Your task to perform on an android device: Go to CNN.com Image 0: 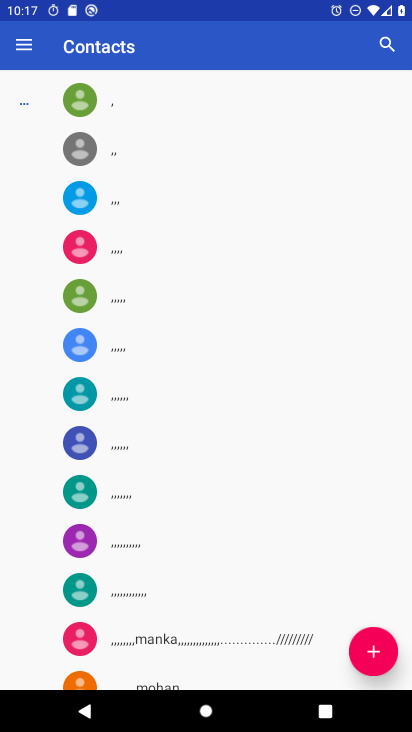
Step 0: press home button
Your task to perform on an android device: Go to CNN.com Image 1: 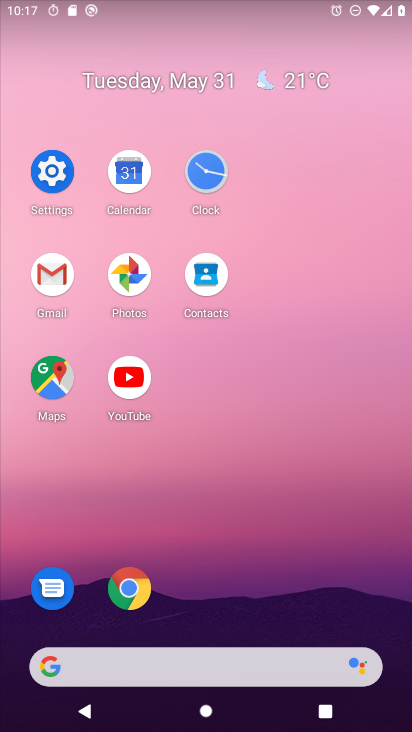
Step 1: click (133, 592)
Your task to perform on an android device: Go to CNN.com Image 2: 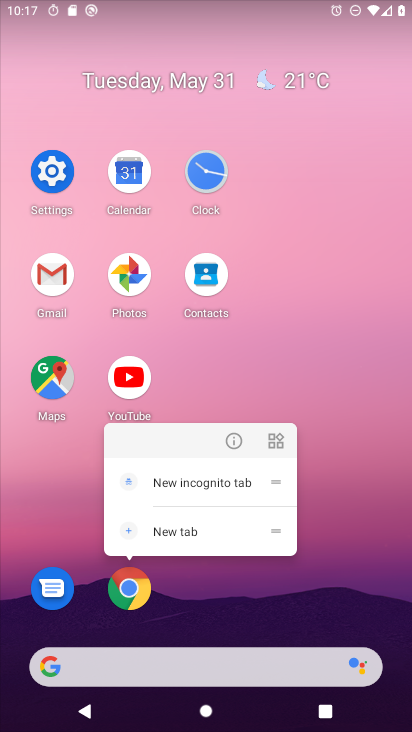
Step 2: click (118, 595)
Your task to perform on an android device: Go to CNN.com Image 3: 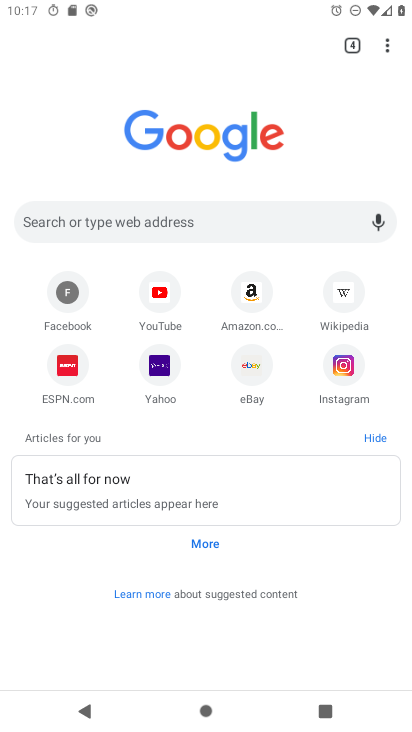
Step 3: click (194, 212)
Your task to perform on an android device: Go to CNN.com Image 4: 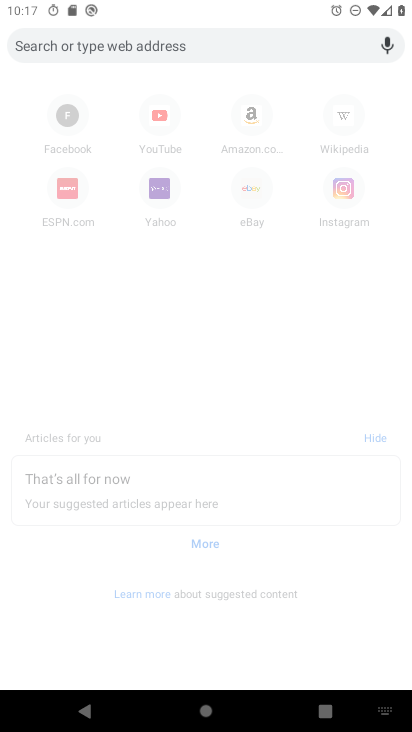
Step 4: type "cnn"
Your task to perform on an android device: Go to CNN.com Image 5: 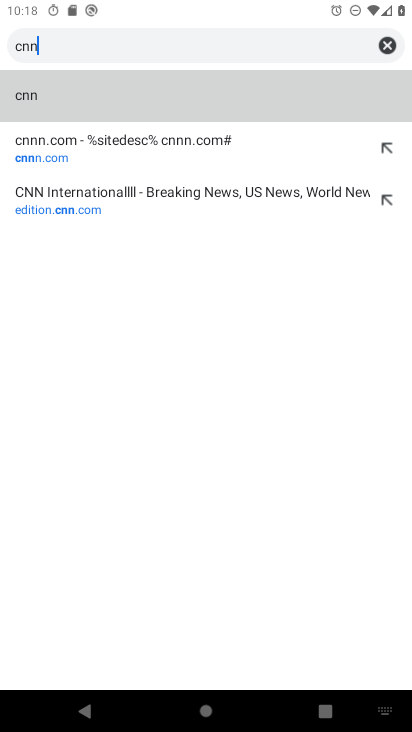
Step 5: click (89, 213)
Your task to perform on an android device: Go to CNN.com Image 6: 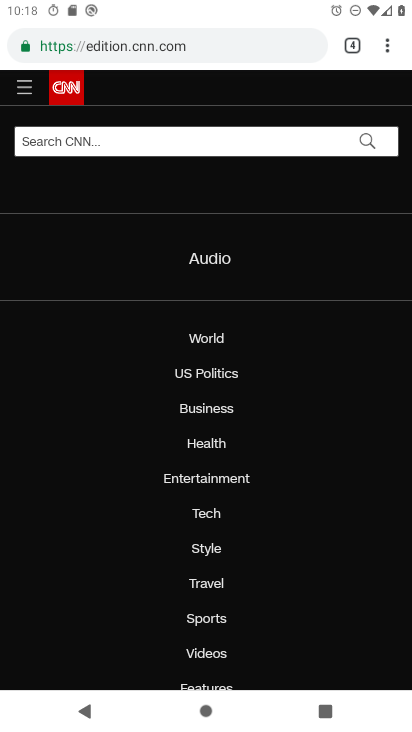
Step 6: task complete